Your task to perform on an android device: show emergency info Image 0: 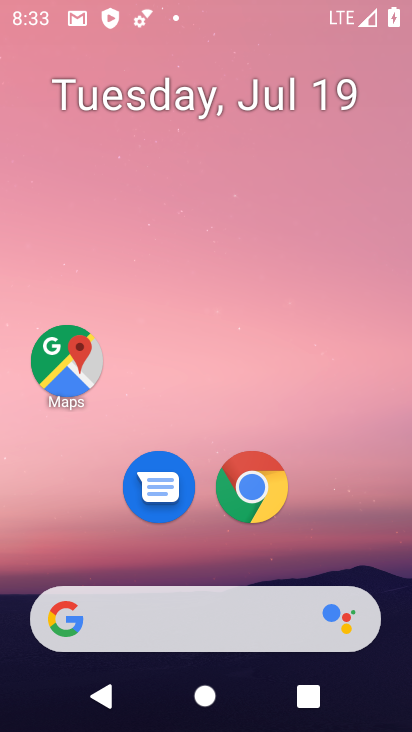
Step 0: drag from (110, 583) to (212, 68)
Your task to perform on an android device: show emergency info Image 1: 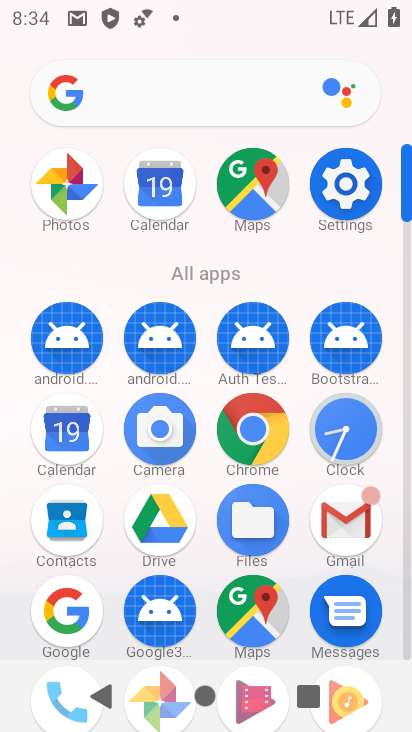
Step 1: click (347, 190)
Your task to perform on an android device: show emergency info Image 2: 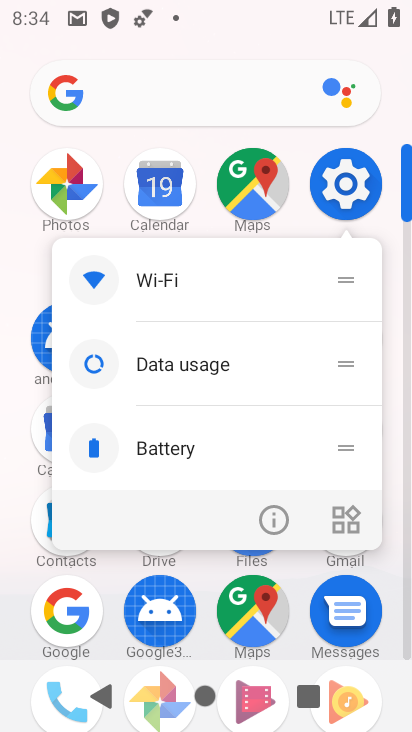
Step 2: click (348, 179)
Your task to perform on an android device: show emergency info Image 3: 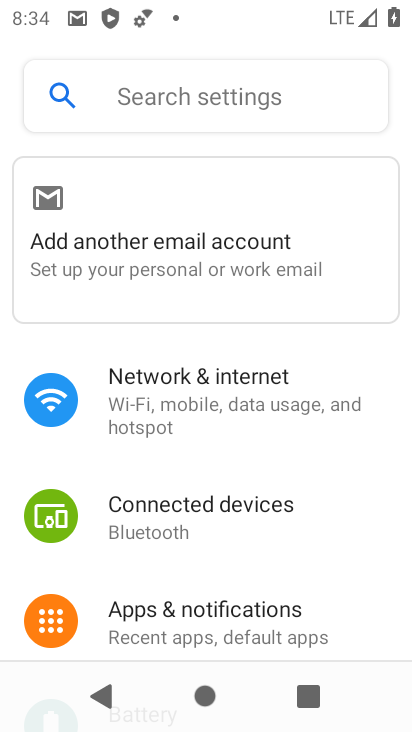
Step 3: drag from (182, 614) to (270, 24)
Your task to perform on an android device: show emergency info Image 4: 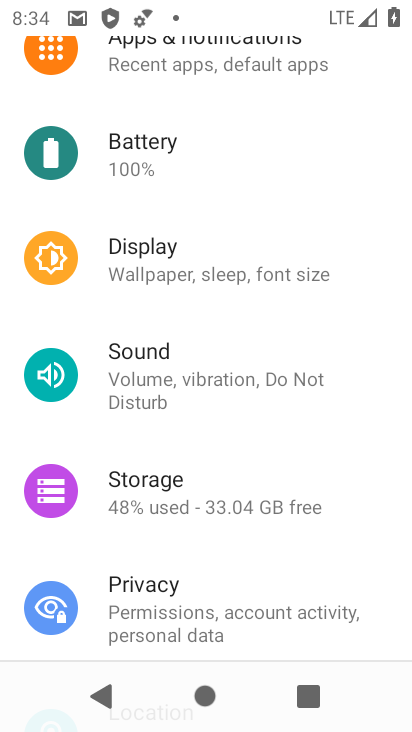
Step 4: drag from (182, 593) to (274, 20)
Your task to perform on an android device: show emergency info Image 5: 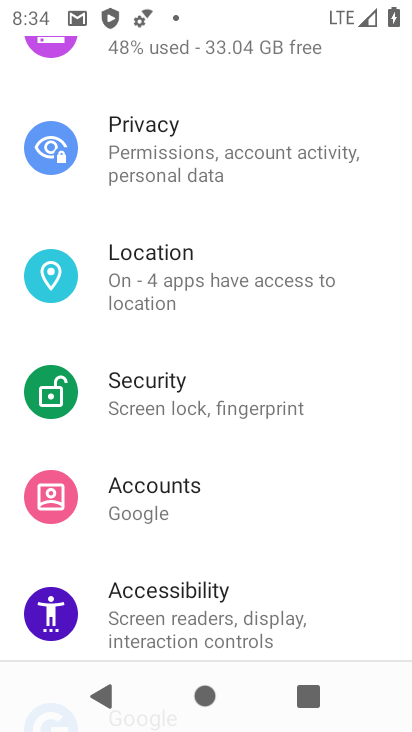
Step 5: drag from (203, 593) to (337, 7)
Your task to perform on an android device: show emergency info Image 6: 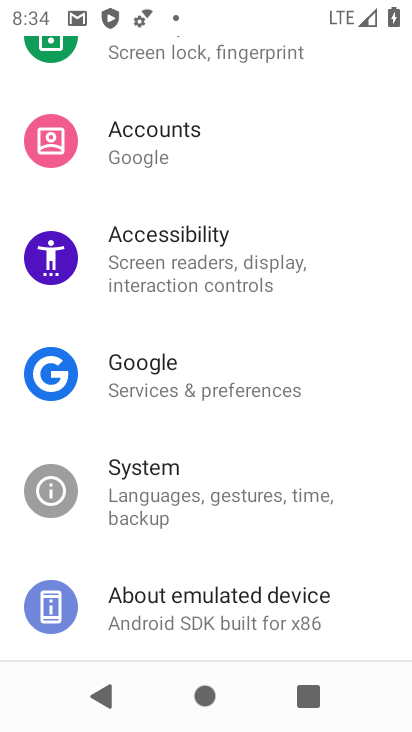
Step 6: click (209, 603)
Your task to perform on an android device: show emergency info Image 7: 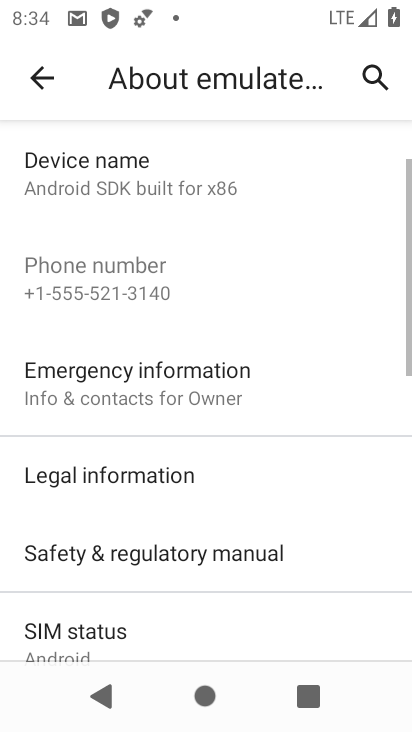
Step 7: click (191, 380)
Your task to perform on an android device: show emergency info Image 8: 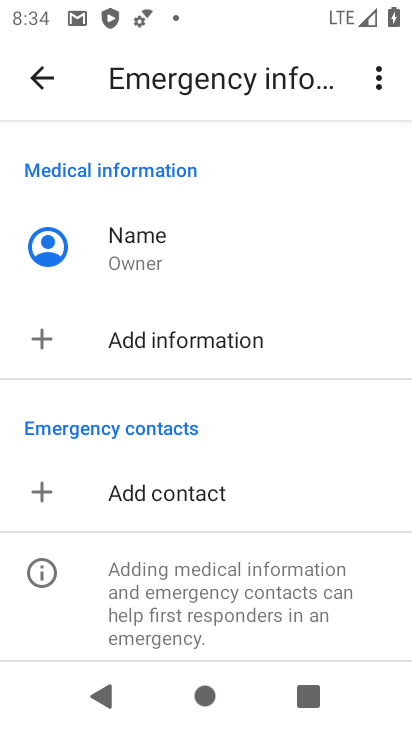
Step 8: task complete